Your task to perform on an android device: Open Chrome and go to the settings page Image 0: 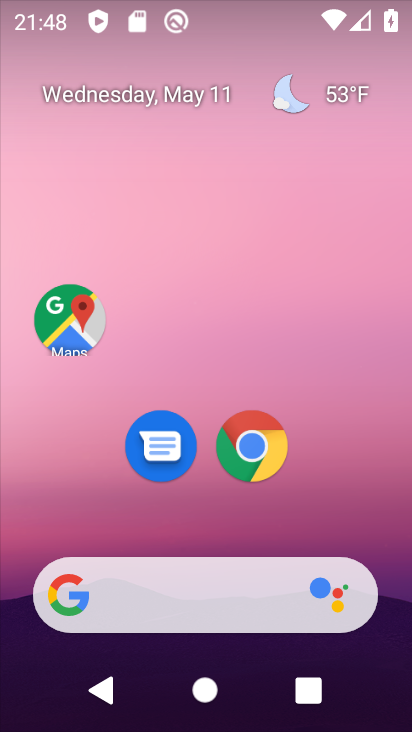
Step 0: click (269, 431)
Your task to perform on an android device: Open Chrome and go to the settings page Image 1: 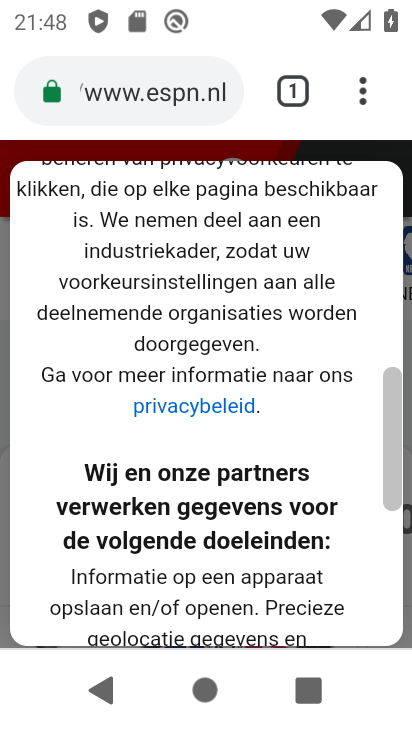
Step 1: click (354, 86)
Your task to perform on an android device: Open Chrome and go to the settings page Image 2: 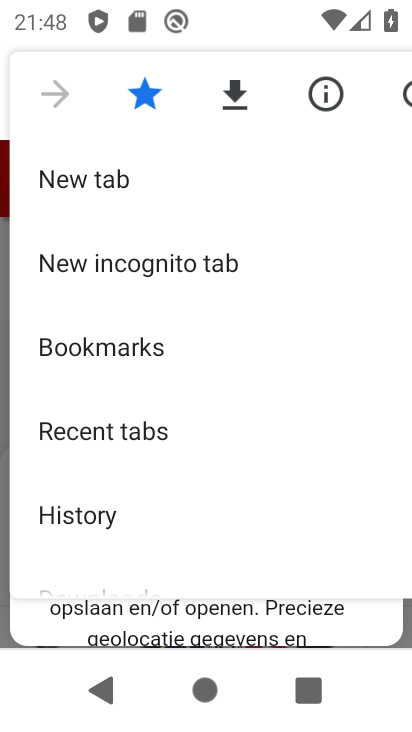
Step 2: drag from (206, 564) to (138, 239)
Your task to perform on an android device: Open Chrome and go to the settings page Image 3: 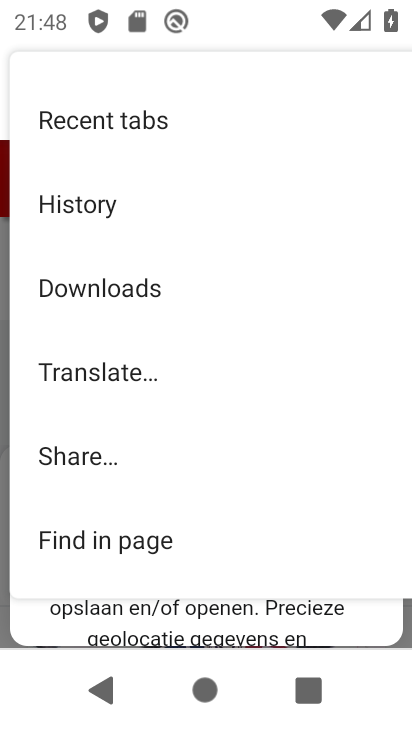
Step 3: drag from (162, 485) to (140, 173)
Your task to perform on an android device: Open Chrome and go to the settings page Image 4: 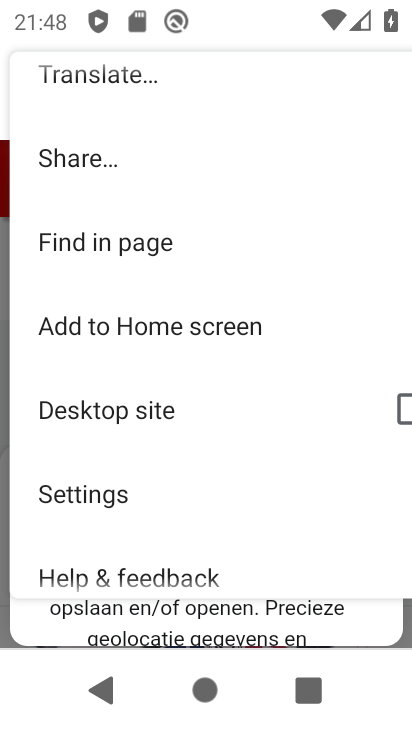
Step 4: click (179, 487)
Your task to perform on an android device: Open Chrome and go to the settings page Image 5: 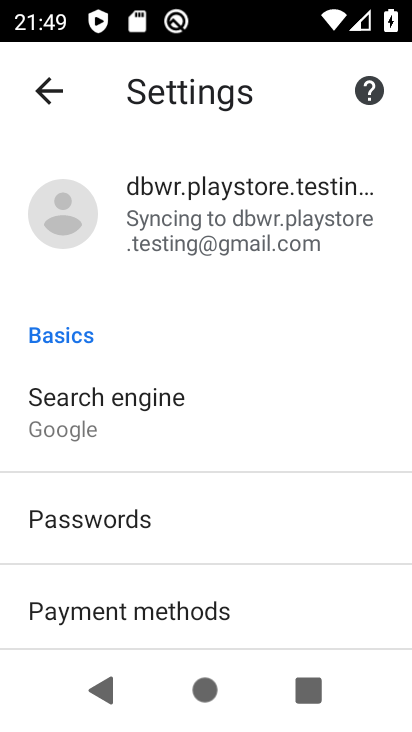
Step 5: task complete